Your task to perform on an android device: Go to battery settings Image 0: 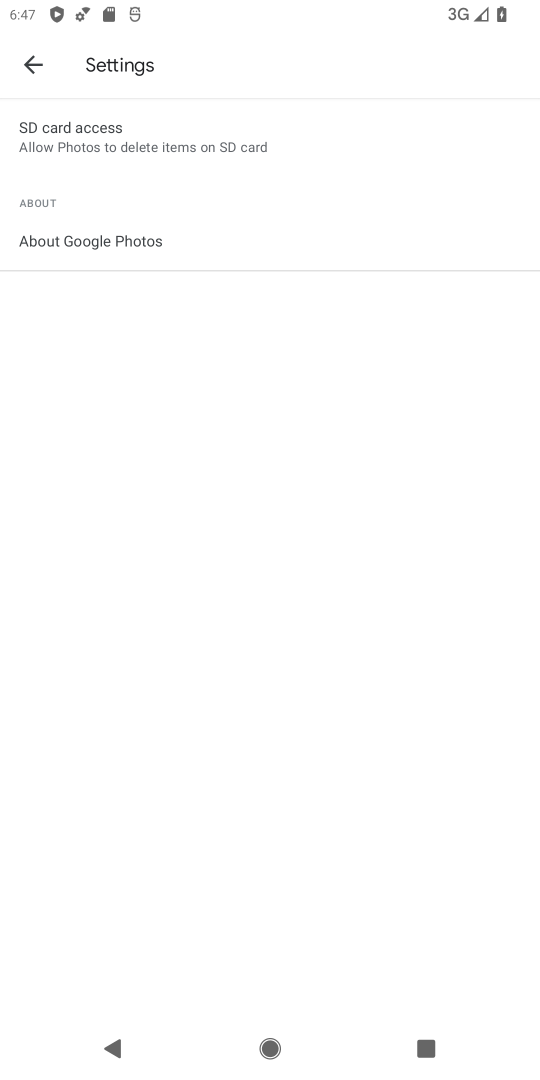
Step 0: press home button
Your task to perform on an android device: Go to battery settings Image 1: 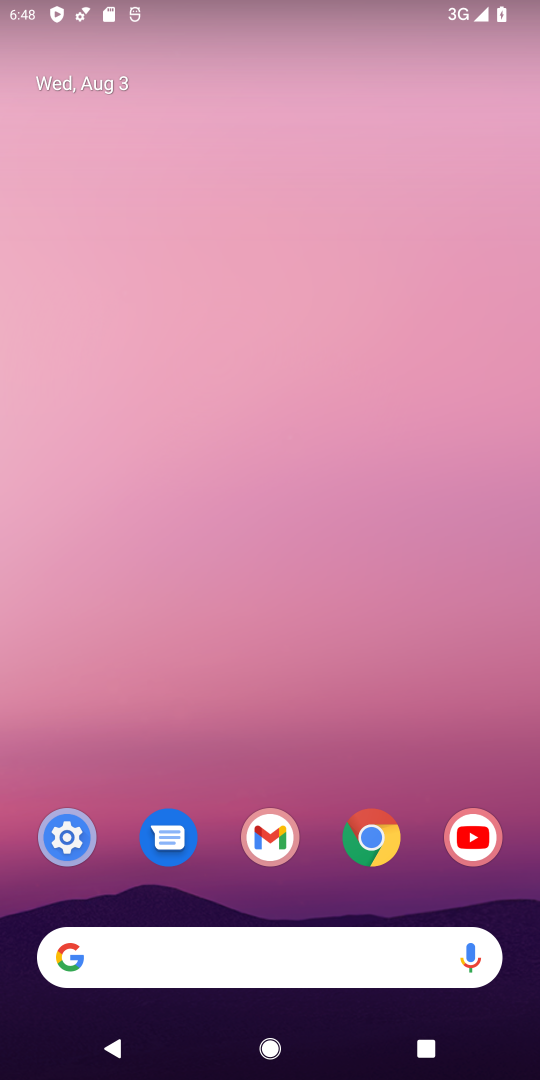
Step 1: press home button
Your task to perform on an android device: Go to battery settings Image 2: 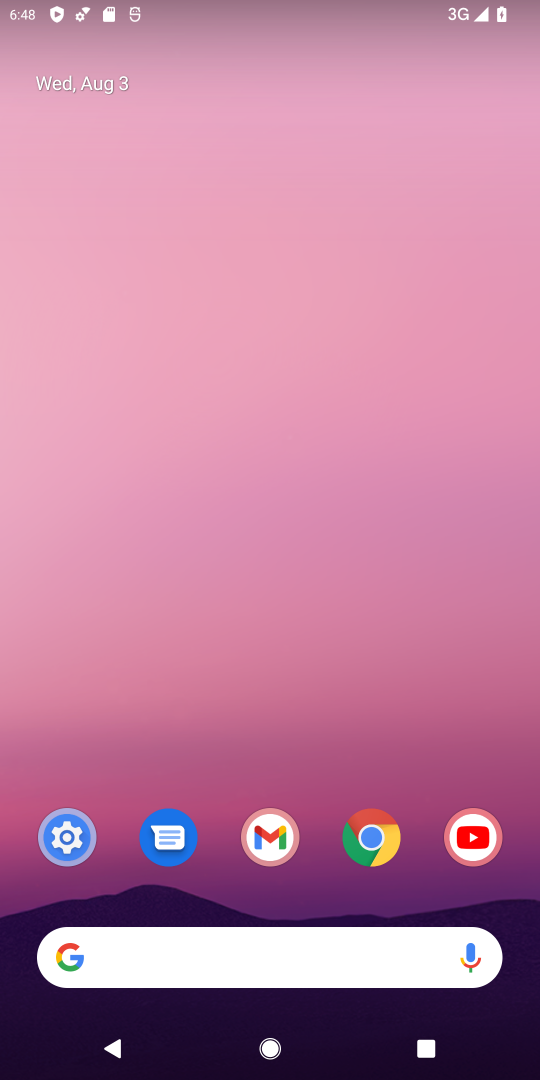
Step 2: drag from (322, 744) to (328, 94)
Your task to perform on an android device: Go to battery settings Image 3: 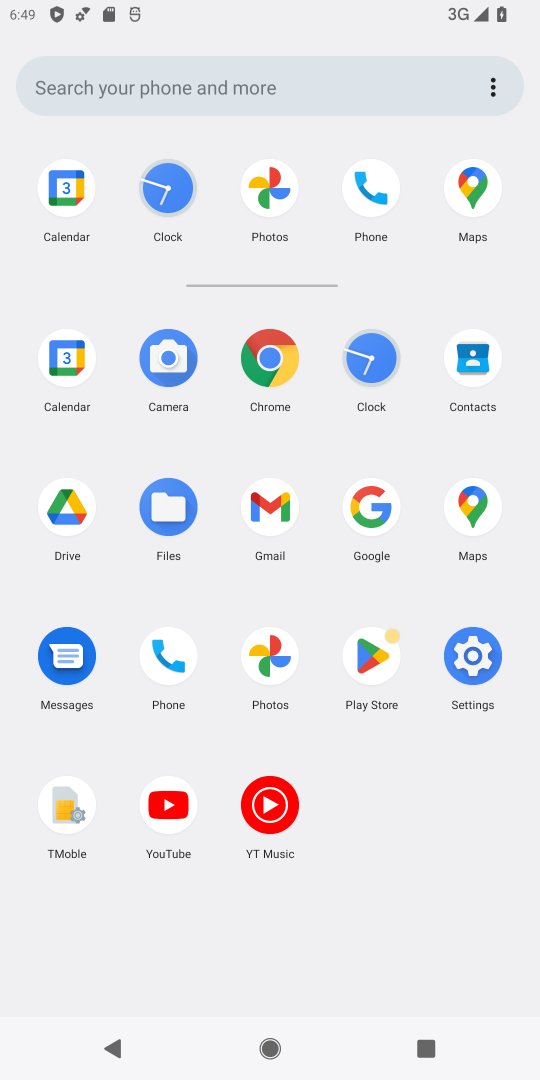
Step 3: click (464, 655)
Your task to perform on an android device: Go to battery settings Image 4: 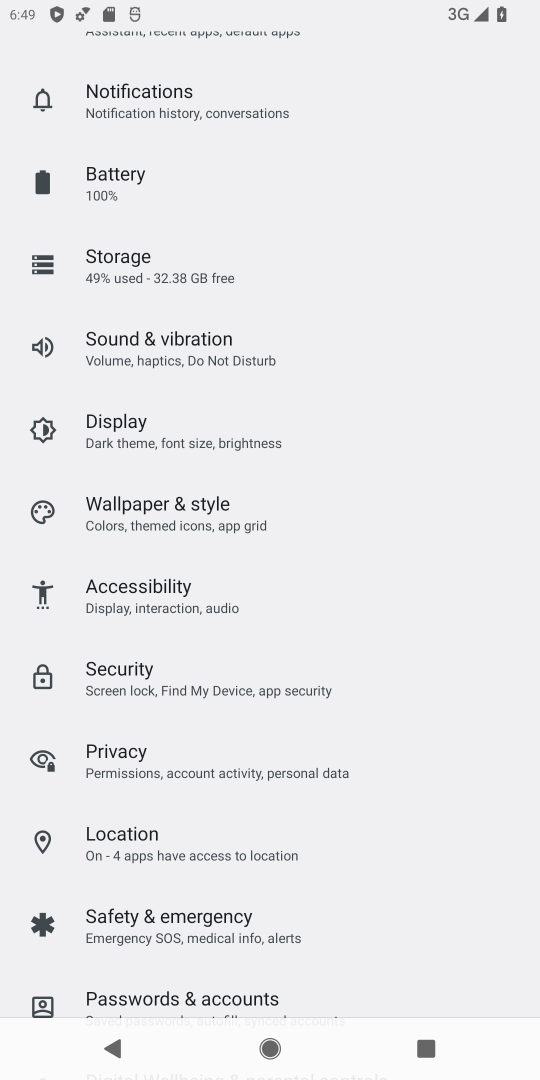
Step 4: click (112, 190)
Your task to perform on an android device: Go to battery settings Image 5: 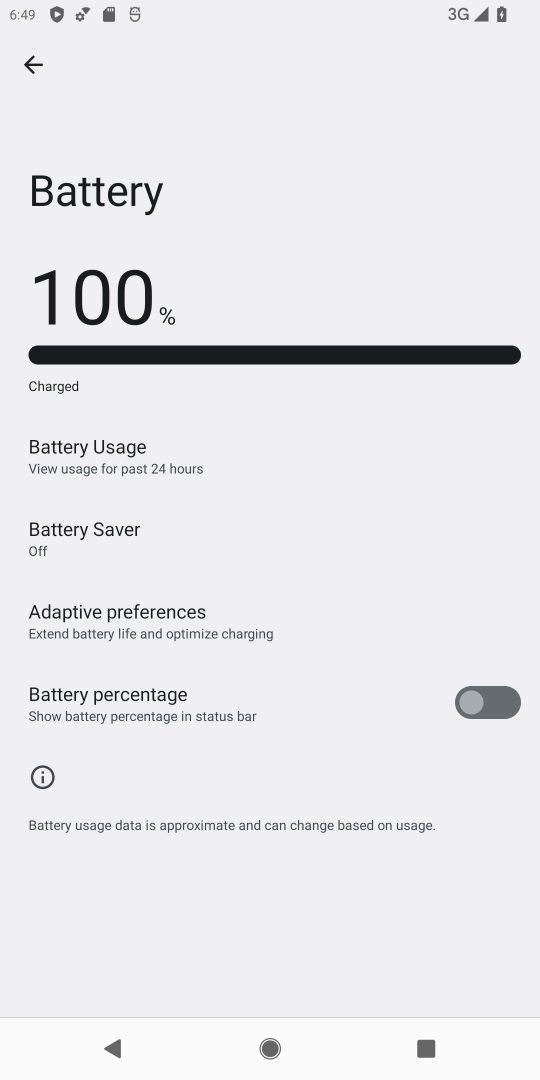
Step 5: task complete